Your task to perform on an android device: Go to accessibility settings Image 0: 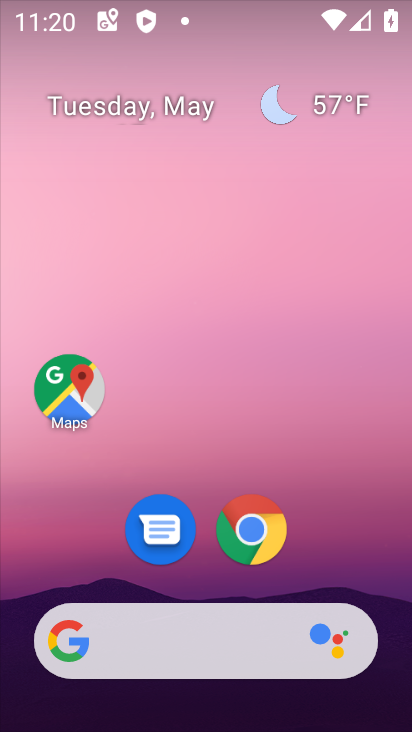
Step 0: drag from (225, 588) to (262, 1)
Your task to perform on an android device: Go to accessibility settings Image 1: 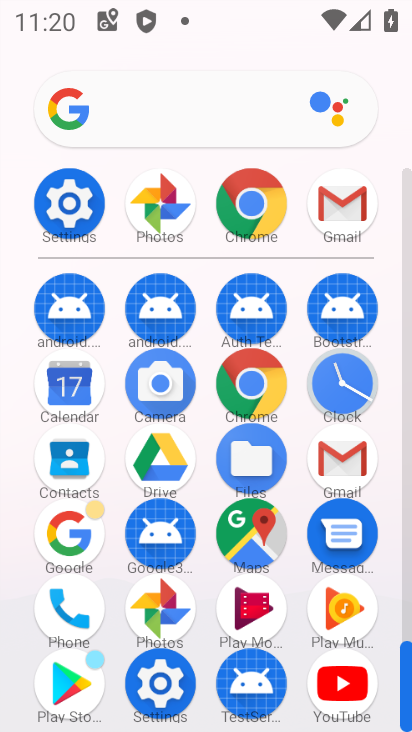
Step 1: click (90, 204)
Your task to perform on an android device: Go to accessibility settings Image 2: 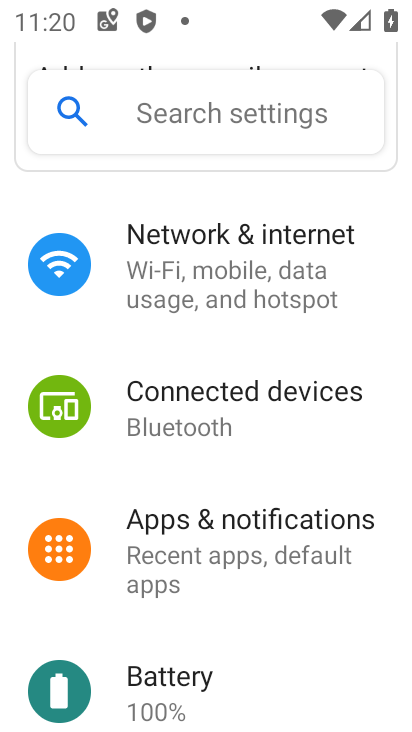
Step 2: drag from (74, 618) to (118, 161)
Your task to perform on an android device: Go to accessibility settings Image 3: 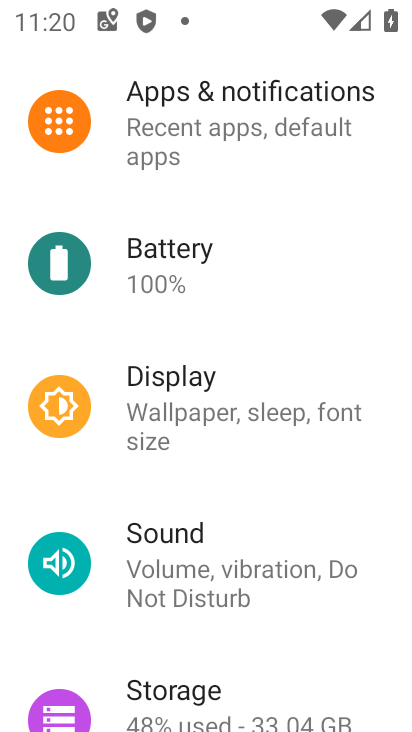
Step 3: drag from (197, 634) to (249, 164)
Your task to perform on an android device: Go to accessibility settings Image 4: 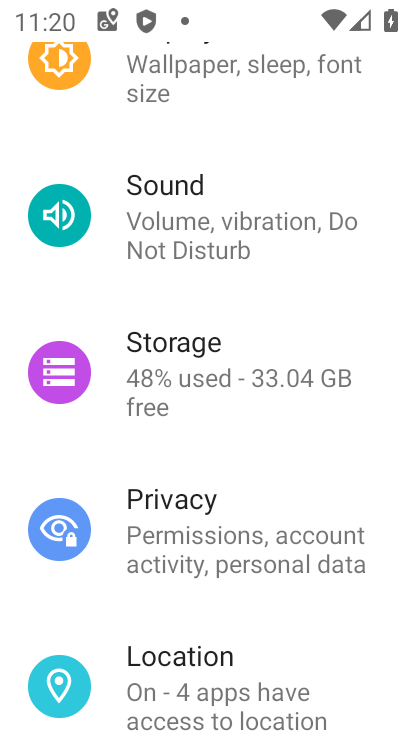
Step 4: drag from (135, 602) to (170, 116)
Your task to perform on an android device: Go to accessibility settings Image 5: 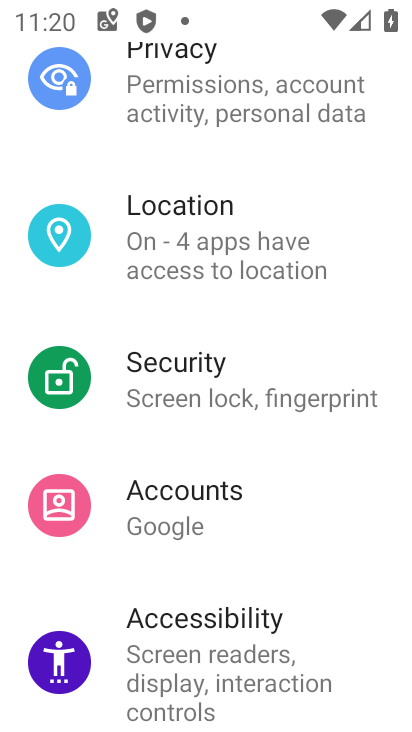
Step 5: click (150, 658)
Your task to perform on an android device: Go to accessibility settings Image 6: 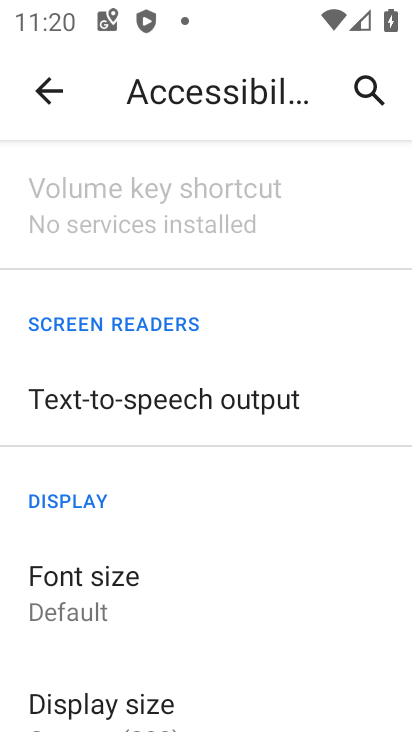
Step 6: task complete